Your task to perform on an android device: change the clock display to analog Image 0: 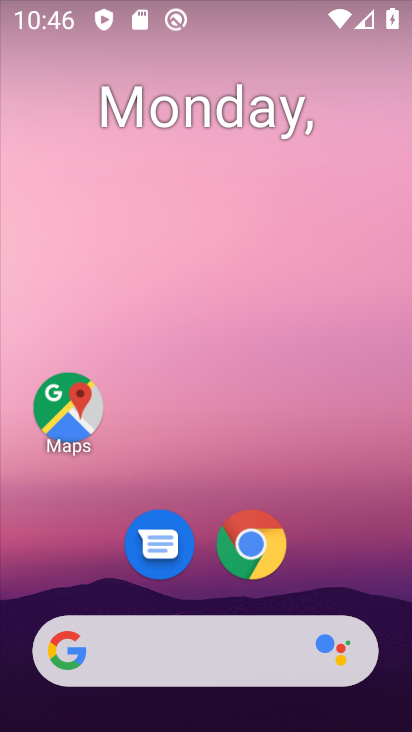
Step 0: drag from (148, 606) to (283, 130)
Your task to perform on an android device: change the clock display to analog Image 1: 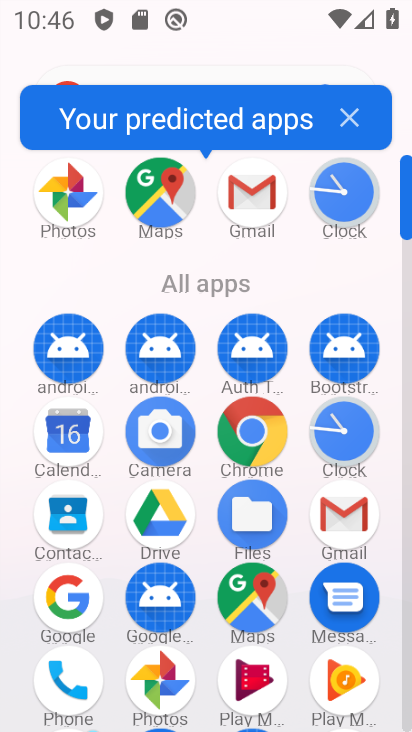
Step 1: click (338, 429)
Your task to perform on an android device: change the clock display to analog Image 2: 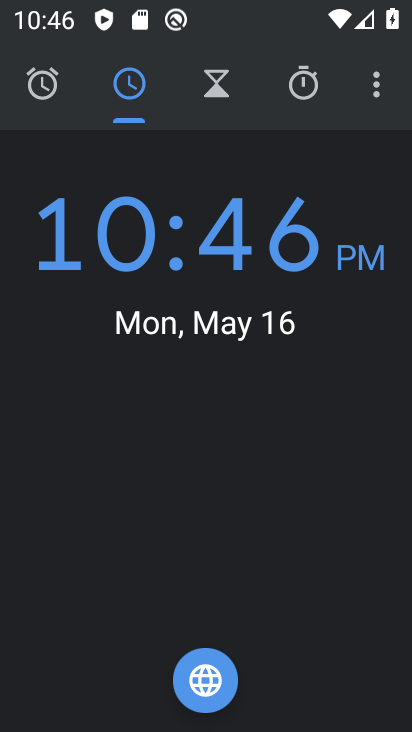
Step 2: click (383, 93)
Your task to perform on an android device: change the clock display to analog Image 3: 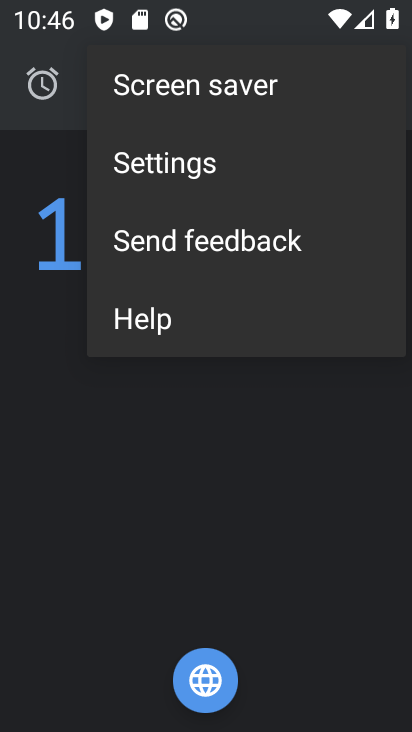
Step 3: click (353, 142)
Your task to perform on an android device: change the clock display to analog Image 4: 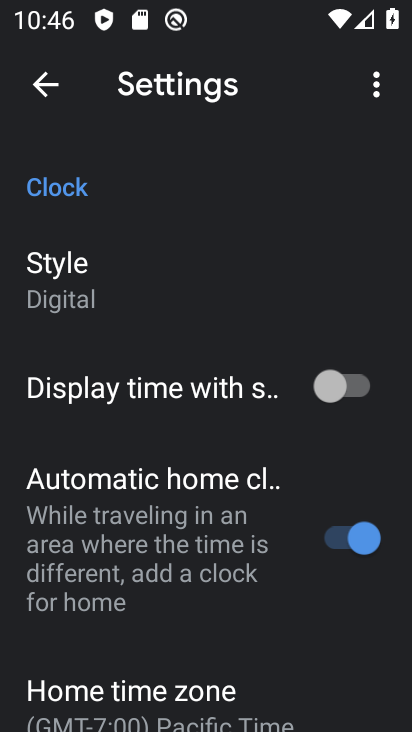
Step 4: click (176, 316)
Your task to perform on an android device: change the clock display to analog Image 5: 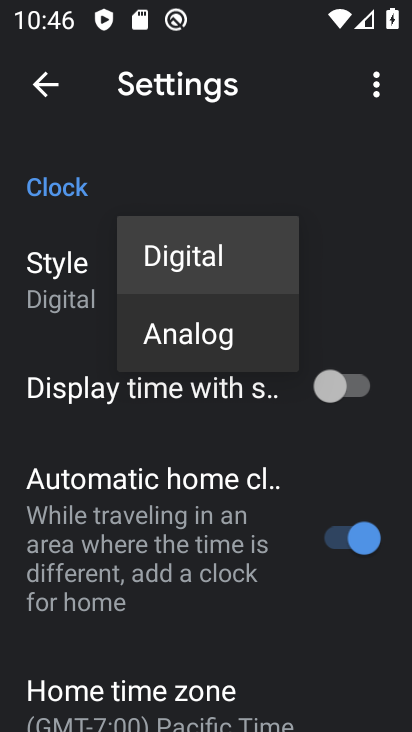
Step 5: click (213, 347)
Your task to perform on an android device: change the clock display to analog Image 6: 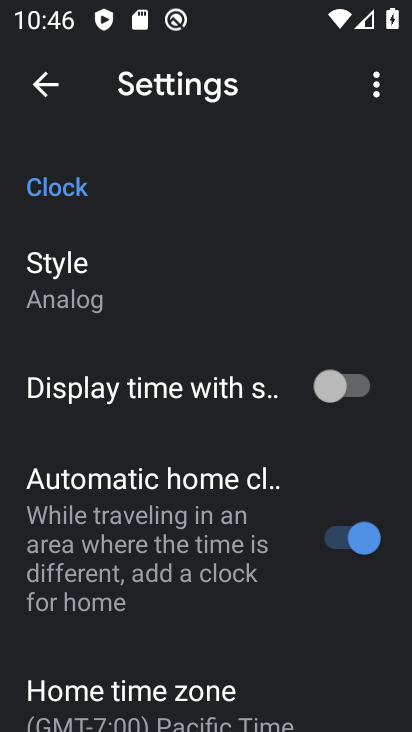
Step 6: task complete